Your task to perform on an android device: Go to network settings Image 0: 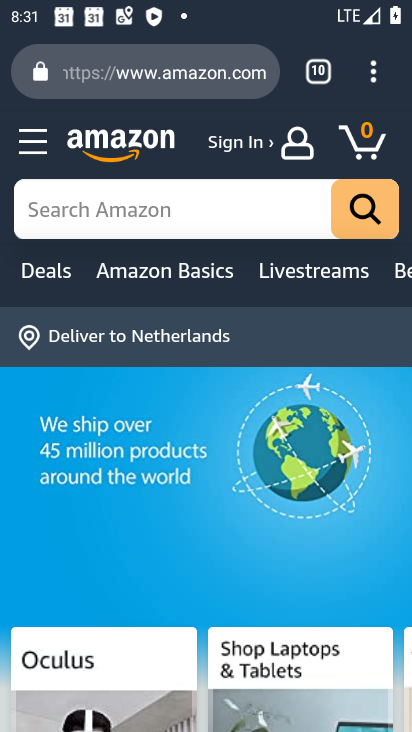
Step 0: press home button
Your task to perform on an android device: Go to network settings Image 1: 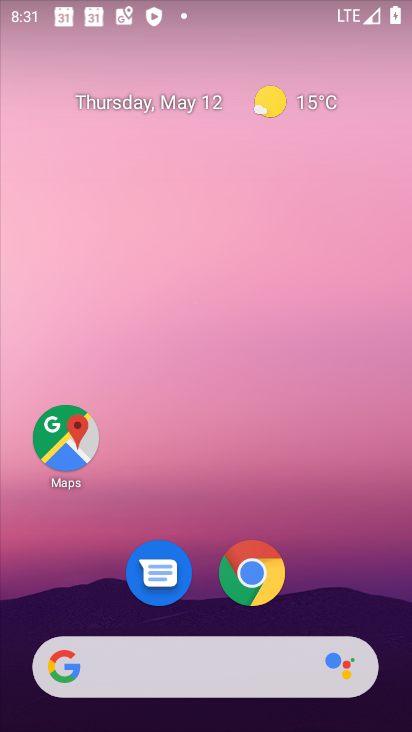
Step 1: drag from (300, 474) to (177, 67)
Your task to perform on an android device: Go to network settings Image 2: 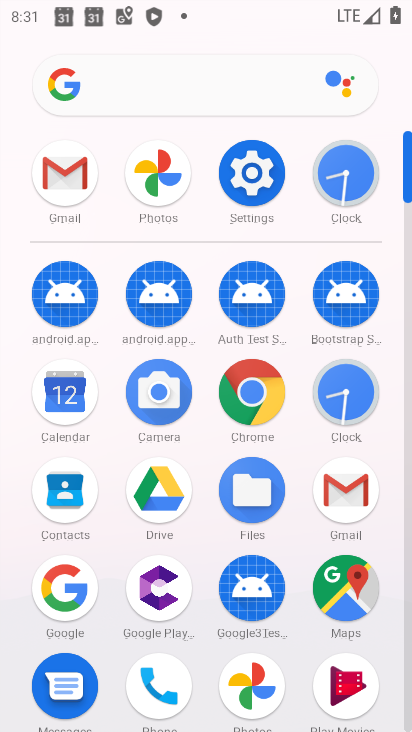
Step 2: click (258, 167)
Your task to perform on an android device: Go to network settings Image 3: 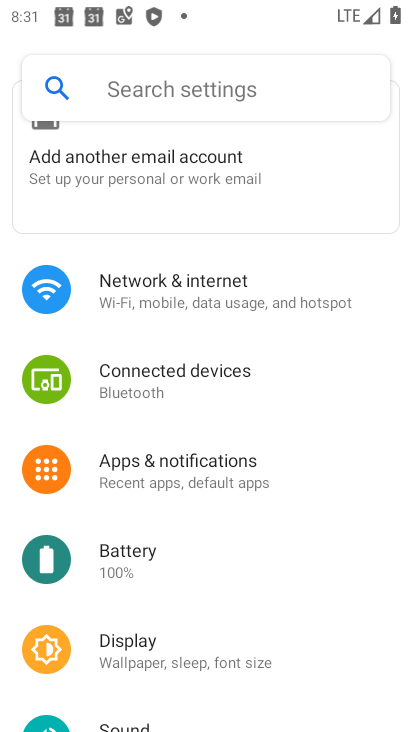
Step 3: click (148, 279)
Your task to perform on an android device: Go to network settings Image 4: 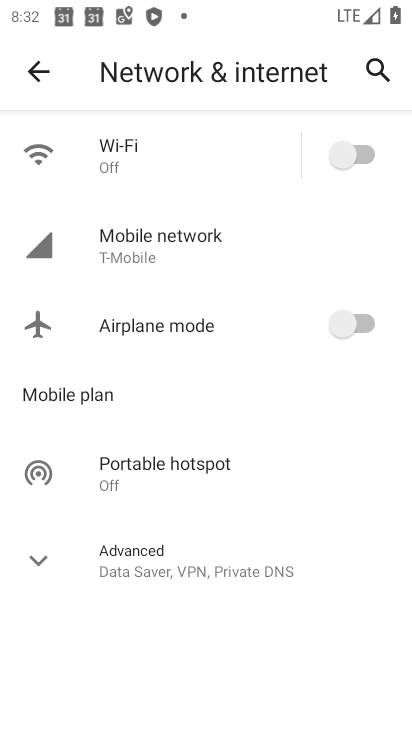
Step 4: task complete